Your task to perform on an android device: change the clock display to digital Image 0: 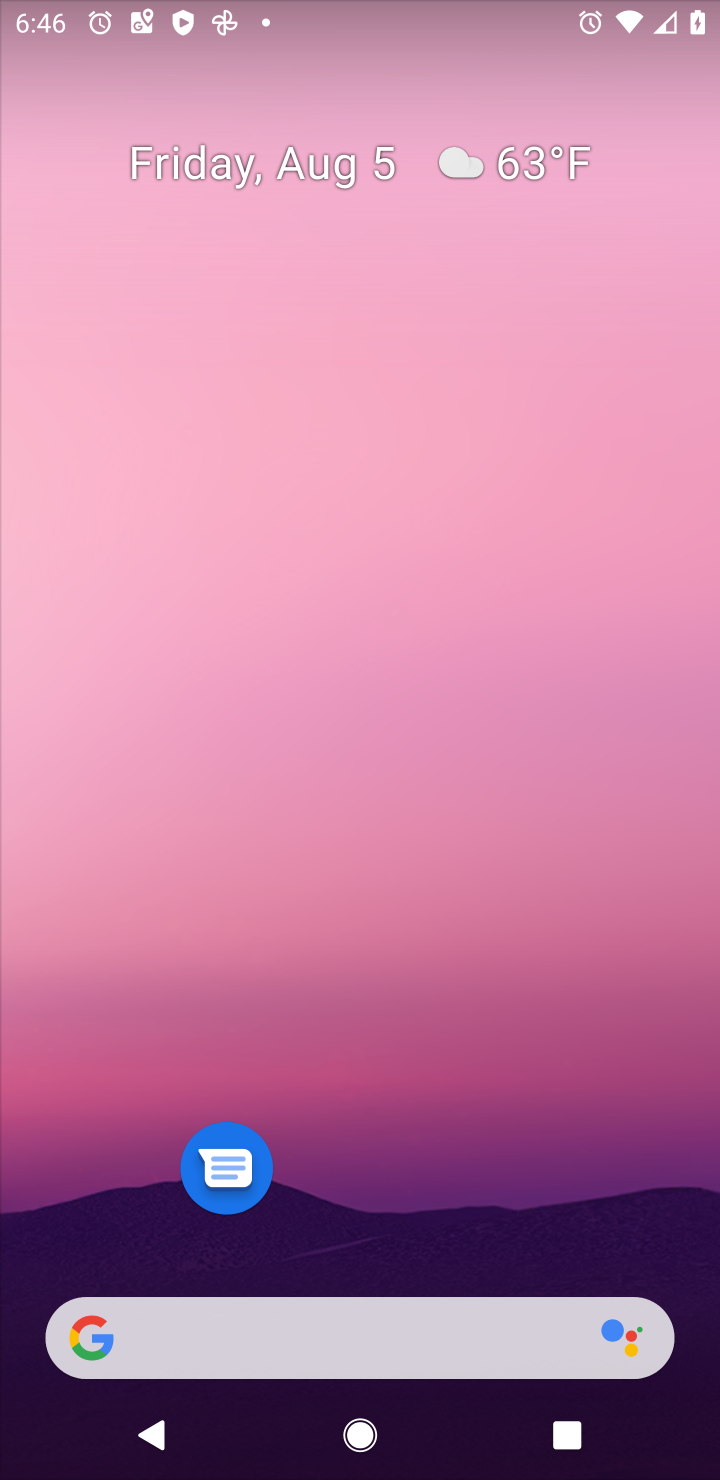
Step 0: drag from (354, 1276) to (496, 266)
Your task to perform on an android device: change the clock display to digital Image 1: 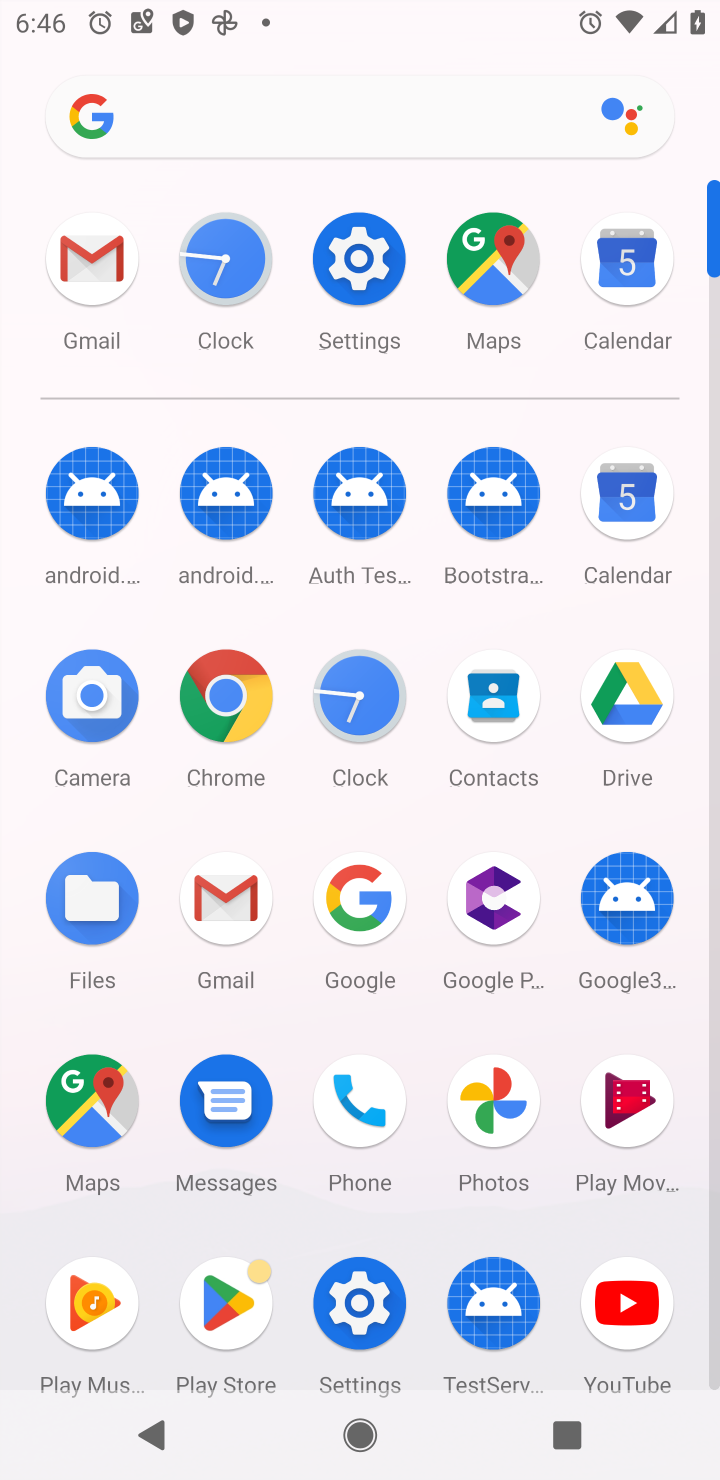
Step 1: click (367, 722)
Your task to perform on an android device: change the clock display to digital Image 2: 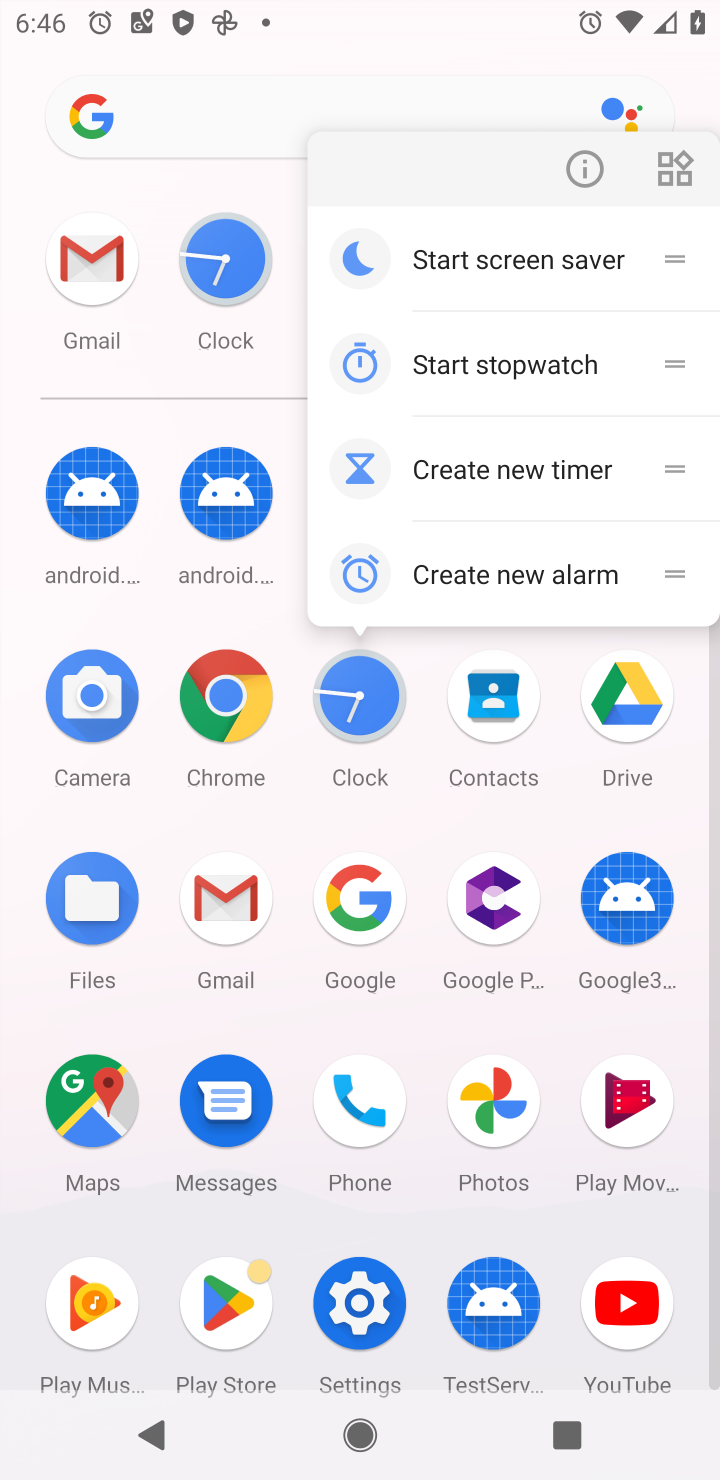
Step 2: click (367, 722)
Your task to perform on an android device: change the clock display to digital Image 3: 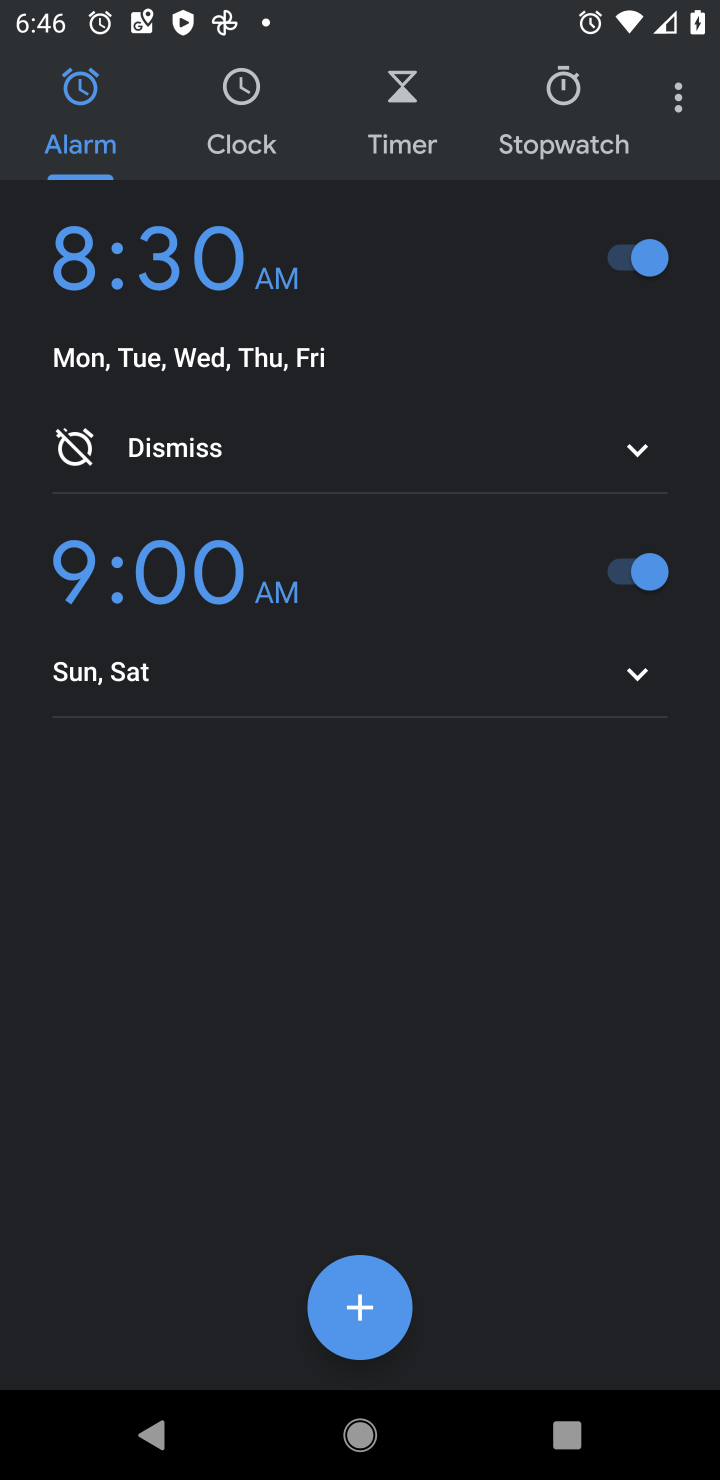
Step 3: click (685, 102)
Your task to perform on an android device: change the clock display to digital Image 4: 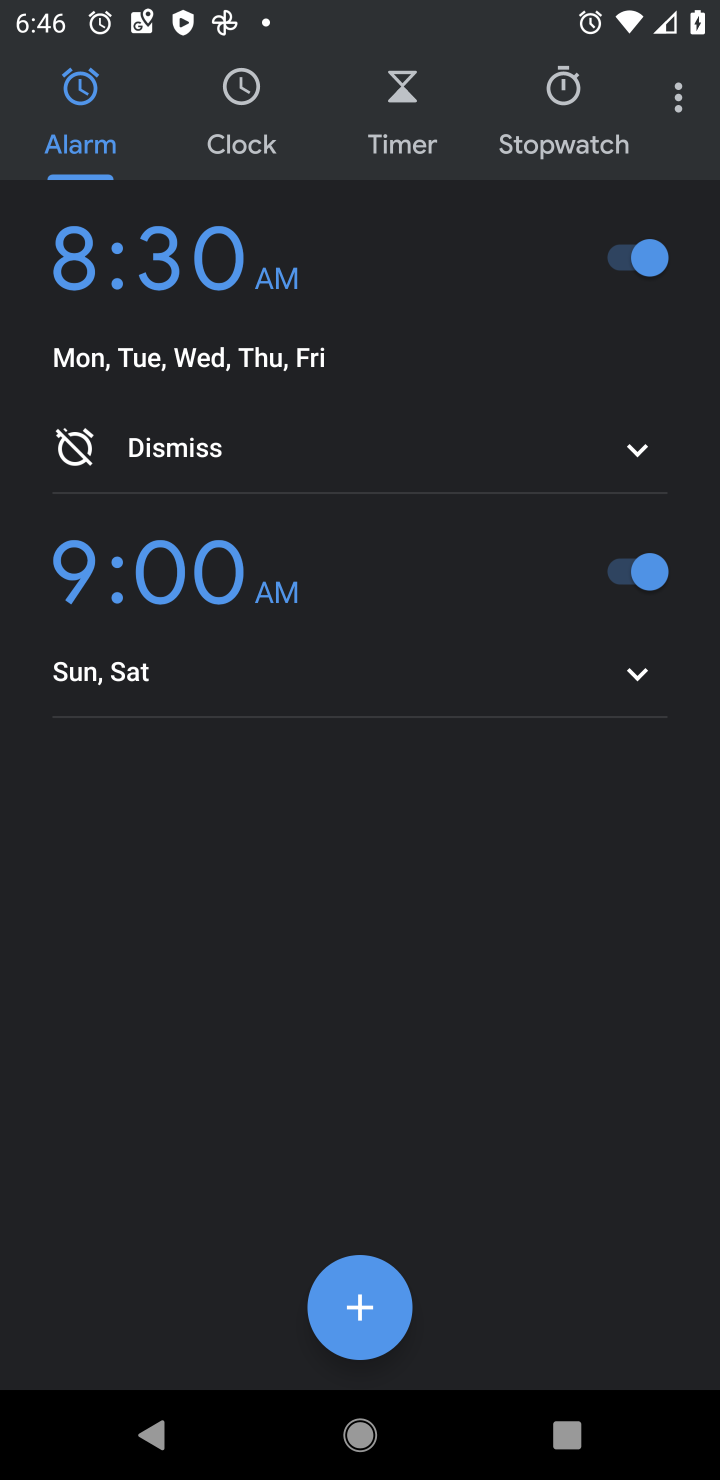
Step 4: click (675, 101)
Your task to perform on an android device: change the clock display to digital Image 5: 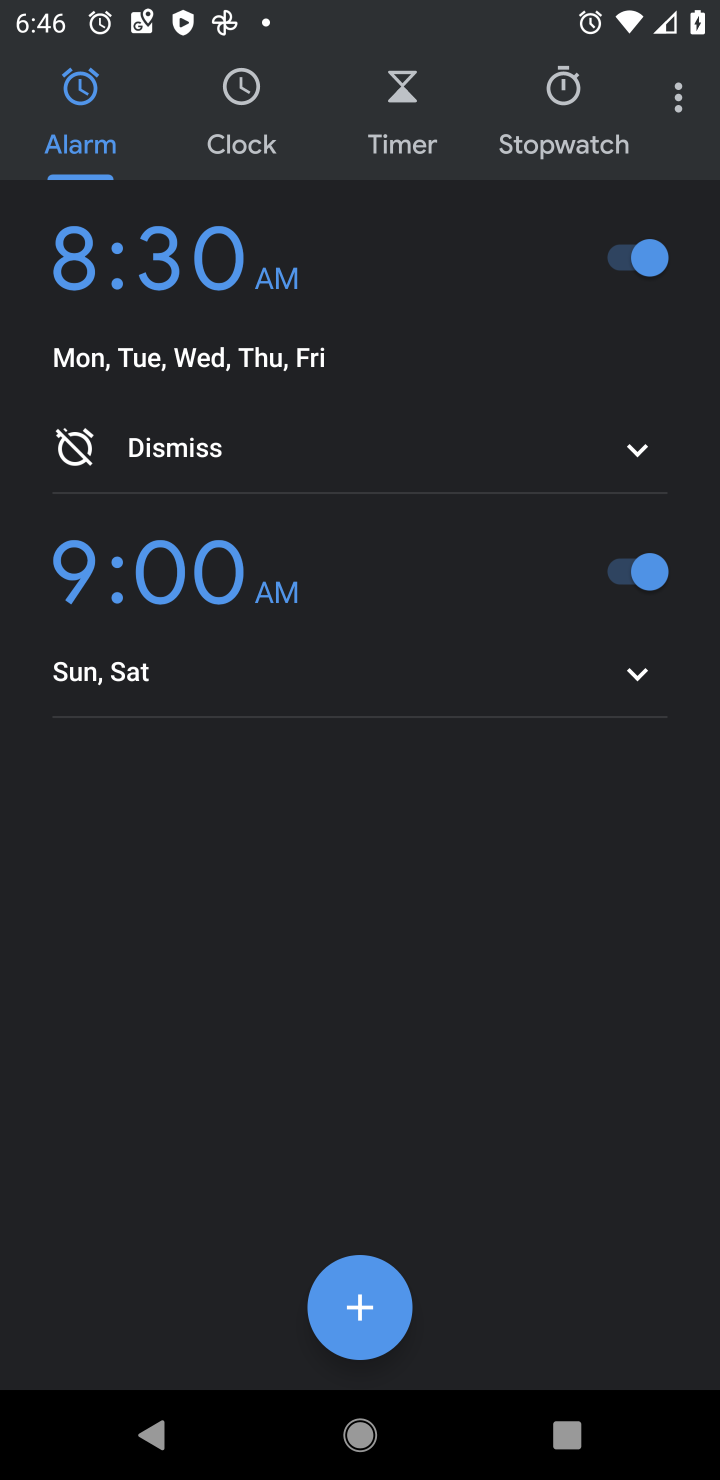
Step 5: click (675, 101)
Your task to perform on an android device: change the clock display to digital Image 6: 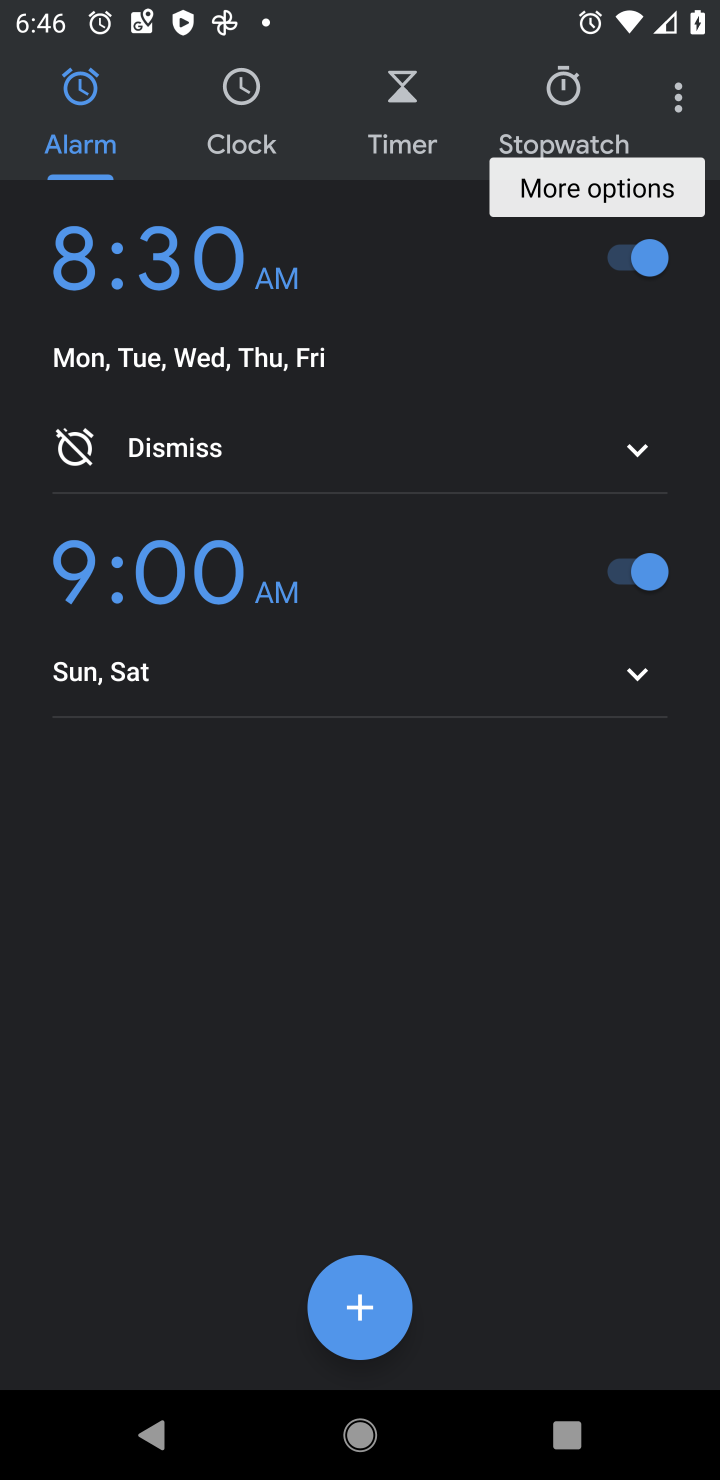
Step 6: click (674, 118)
Your task to perform on an android device: change the clock display to digital Image 7: 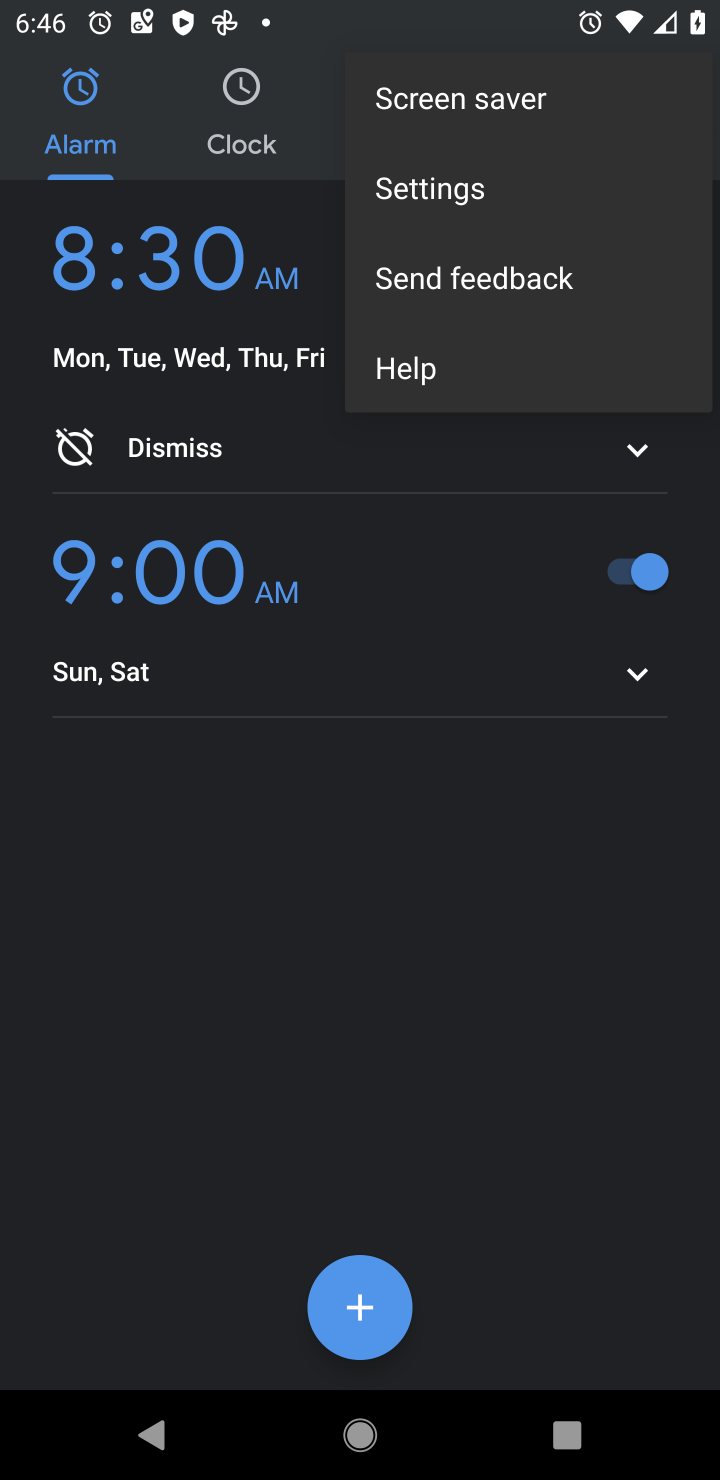
Step 7: click (431, 193)
Your task to perform on an android device: change the clock display to digital Image 8: 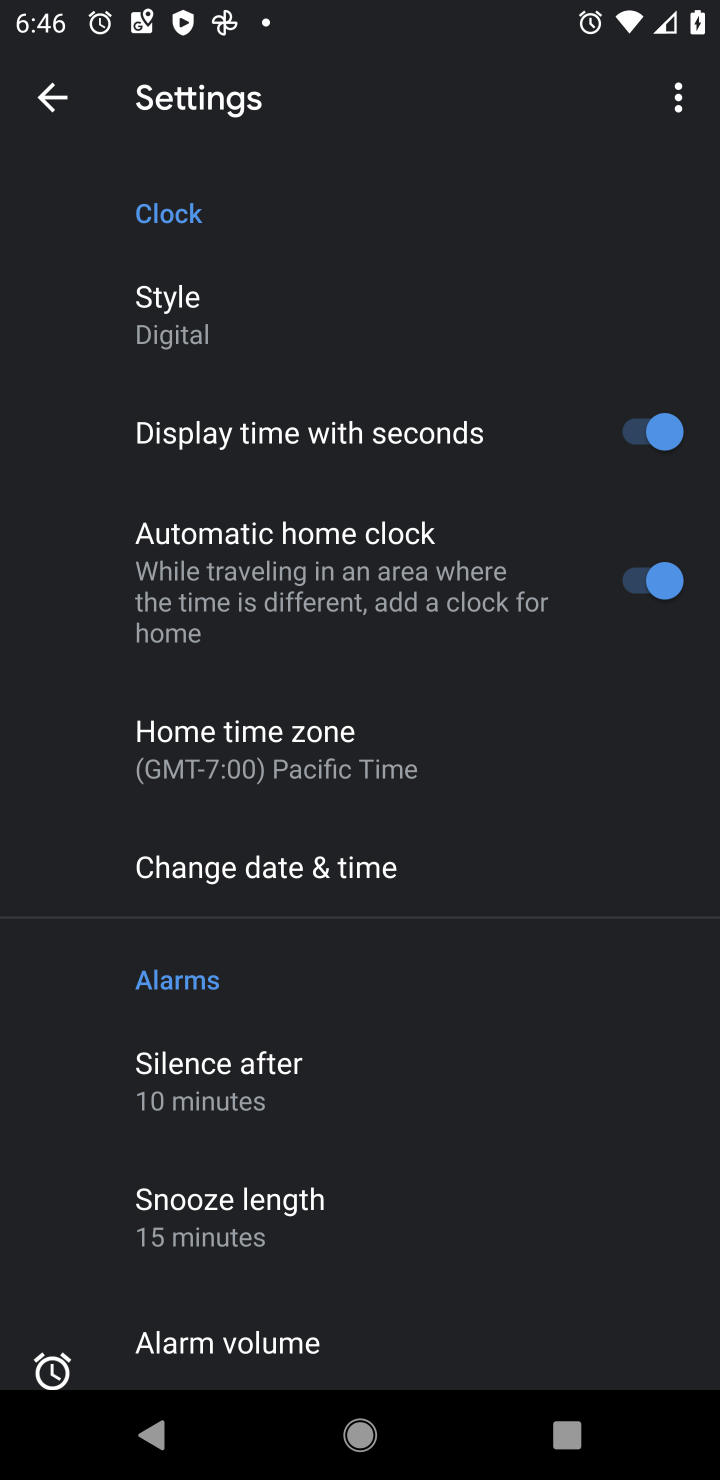
Step 8: click (176, 326)
Your task to perform on an android device: change the clock display to digital Image 9: 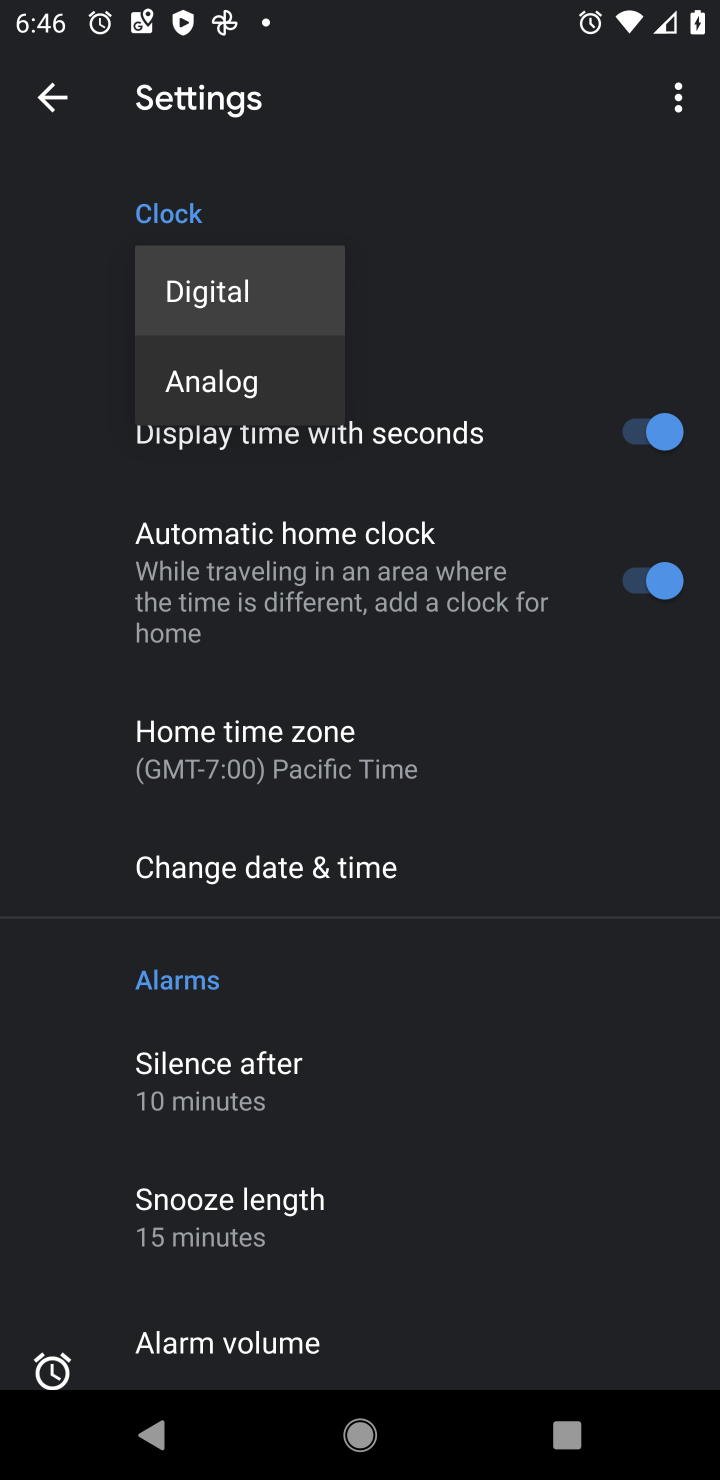
Step 9: task complete